Your task to perform on an android device: Open the calendar app, open the side menu, and click the "Day" option Image 0: 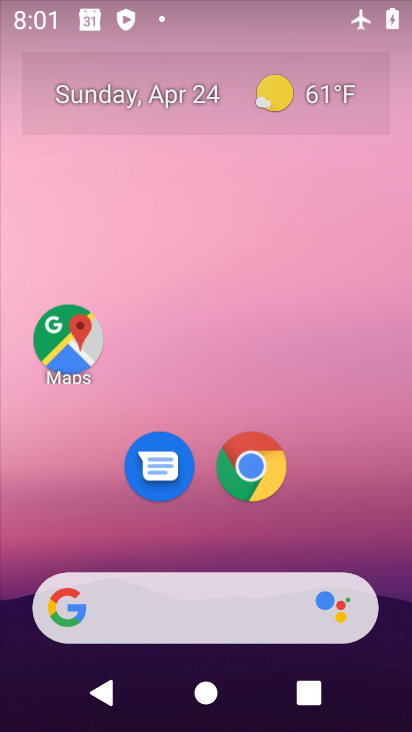
Step 0: drag from (216, 508) to (247, 3)
Your task to perform on an android device: Open the calendar app, open the side menu, and click the "Day" option Image 1: 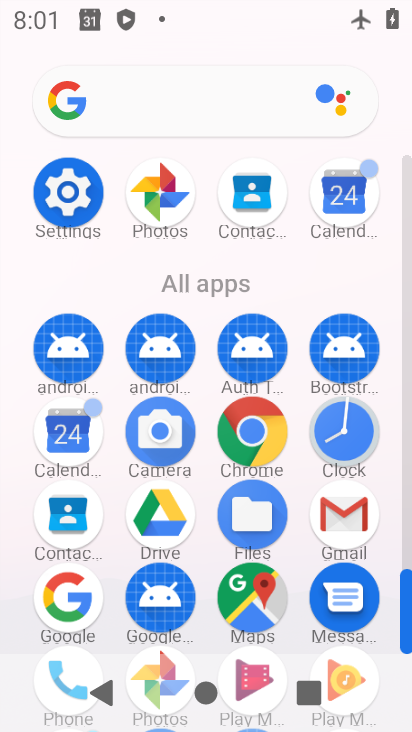
Step 1: click (71, 412)
Your task to perform on an android device: Open the calendar app, open the side menu, and click the "Day" option Image 2: 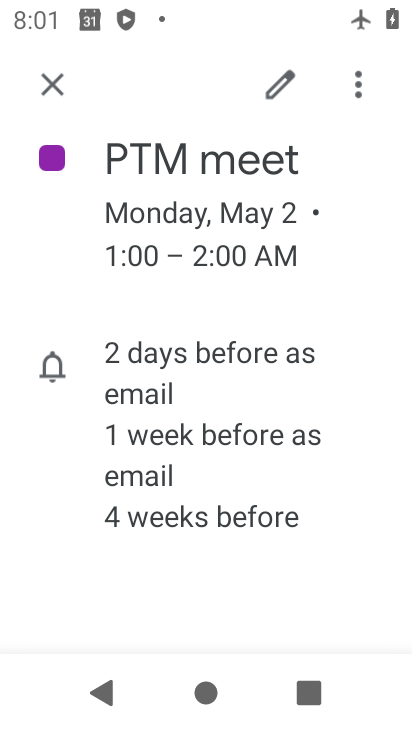
Step 2: click (50, 85)
Your task to perform on an android device: Open the calendar app, open the side menu, and click the "Day" option Image 3: 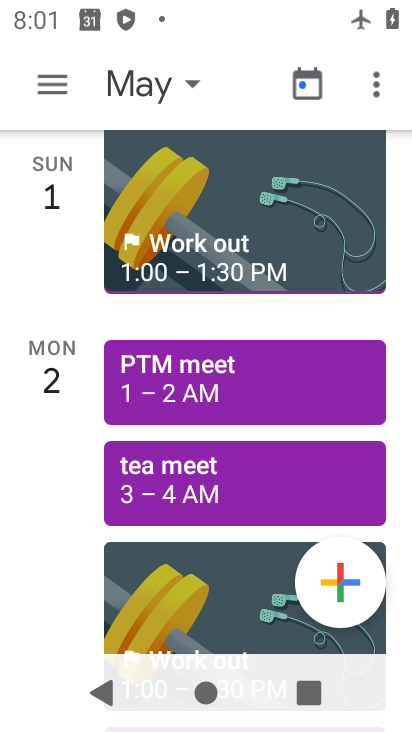
Step 3: click (49, 83)
Your task to perform on an android device: Open the calendar app, open the side menu, and click the "Day" option Image 4: 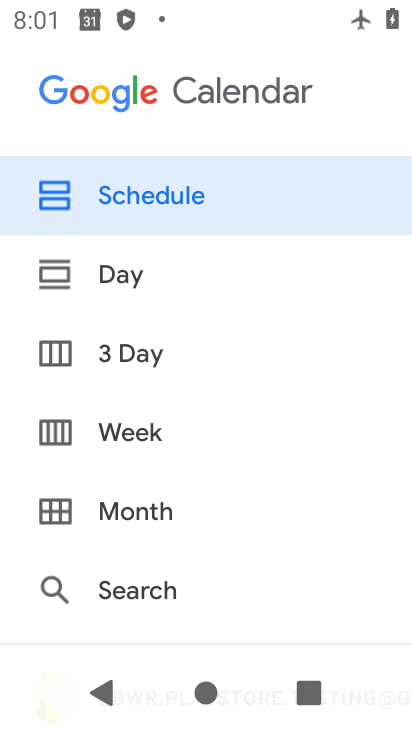
Step 4: click (125, 293)
Your task to perform on an android device: Open the calendar app, open the side menu, and click the "Day" option Image 5: 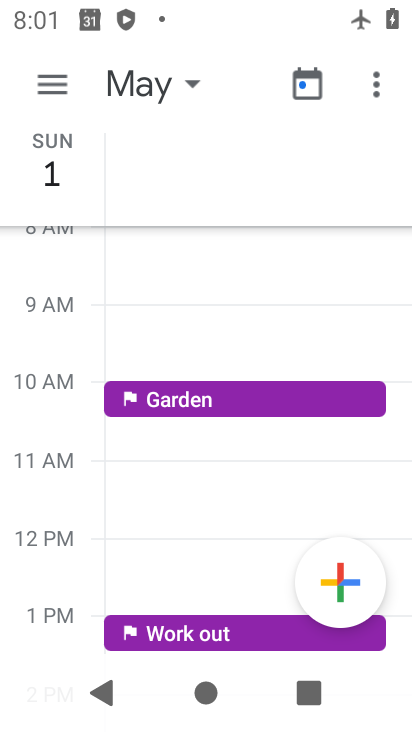
Step 5: task complete